Your task to perform on an android device: uninstall "Speedtest by Ookla" Image 0: 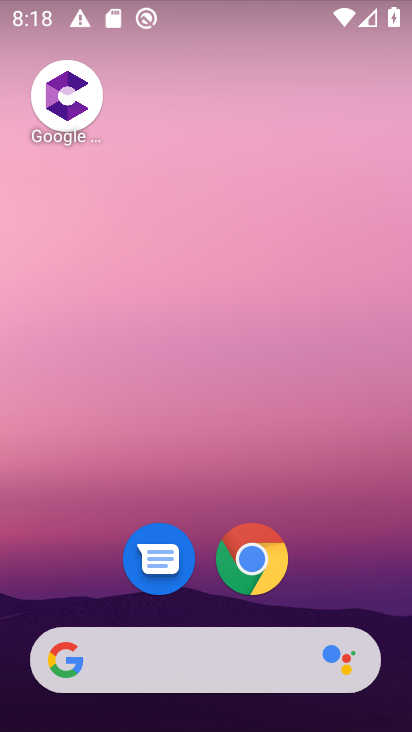
Step 0: drag from (203, 492) to (284, 44)
Your task to perform on an android device: uninstall "Speedtest by Ookla" Image 1: 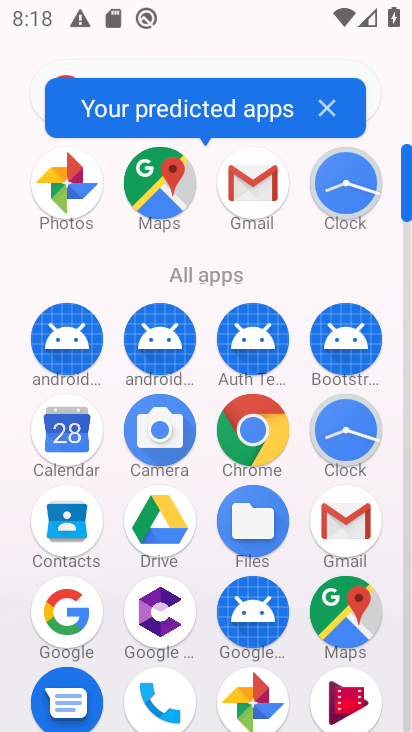
Step 1: drag from (202, 592) to (225, 245)
Your task to perform on an android device: uninstall "Speedtest by Ookla" Image 2: 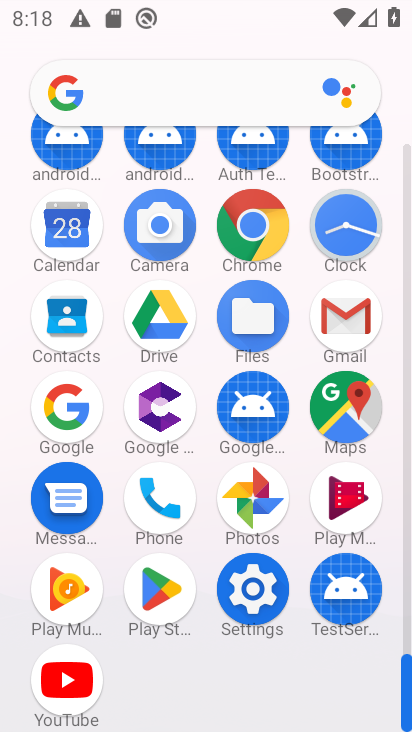
Step 2: click (152, 586)
Your task to perform on an android device: uninstall "Speedtest by Ookla" Image 3: 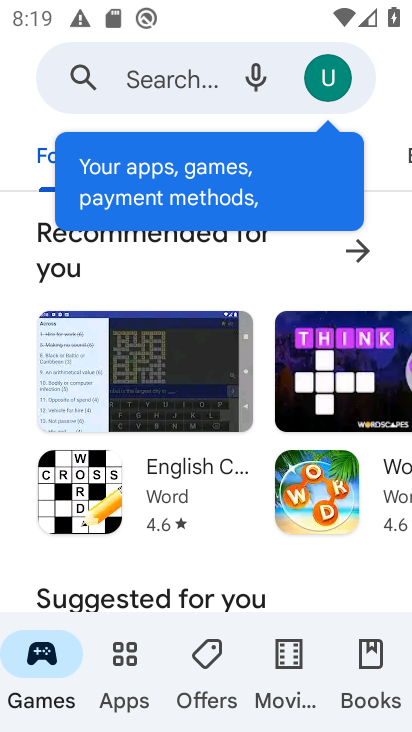
Step 3: click (390, 103)
Your task to perform on an android device: uninstall "Speedtest by Ookla" Image 4: 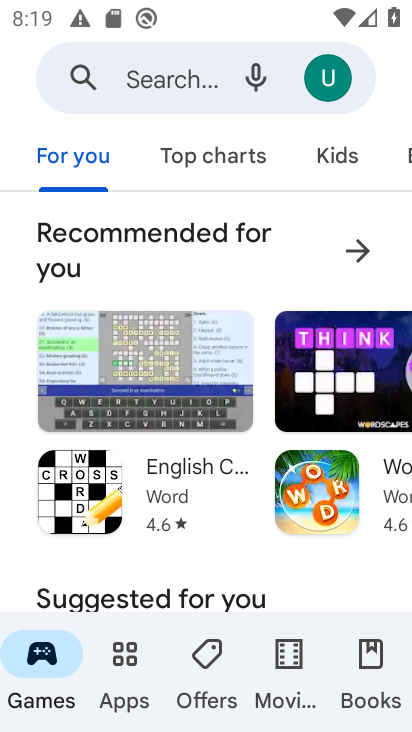
Step 4: click (165, 67)
Your task to perform on an android device: uninstall "Speedtest by Ookla" Image 5: 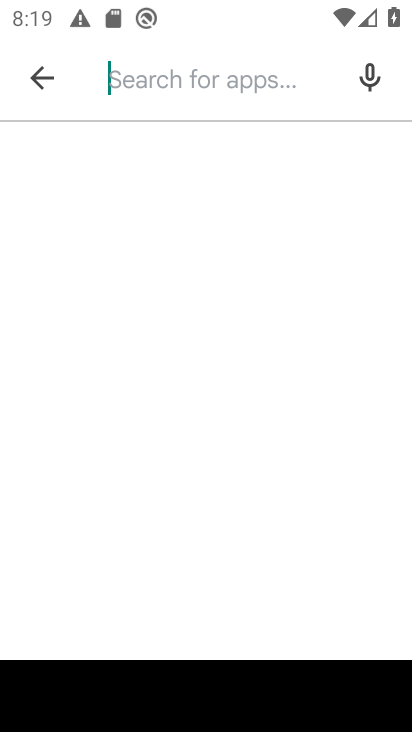
Step 5: type "speedtest"
Your task to perform on an android device: uninstall "Speedtest by Ookla" Image 6: 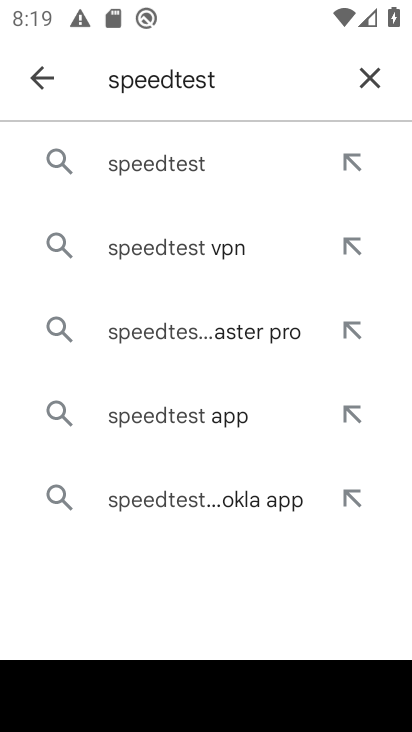
Step 6: click (155, 180)
Your task to perform on an android device: uninstall "Speedtest by Ookla" Image 7: 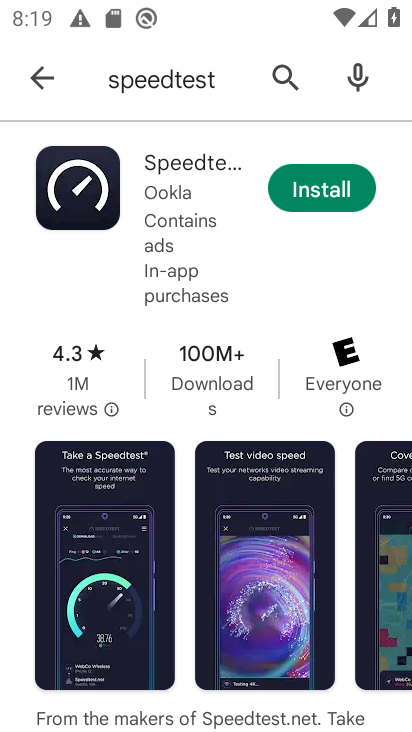
Step 7: task complete